Your task to perform on an android device: turn on priority inbox in the gmail app Image 0: 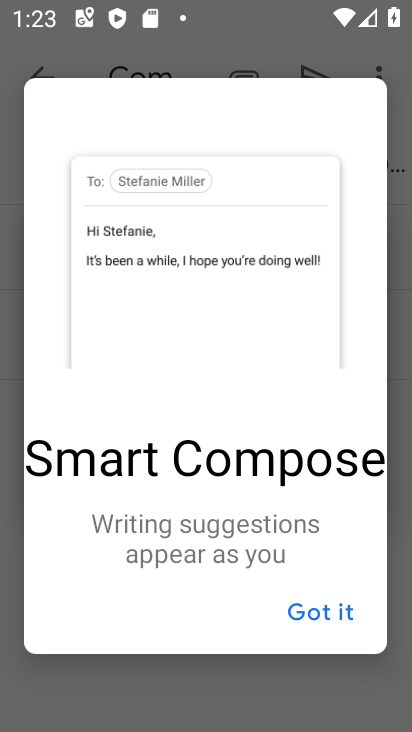
Step 0: press home button
Your task to perform on an android device: turn on priority inbox in the gmail app Image 1: 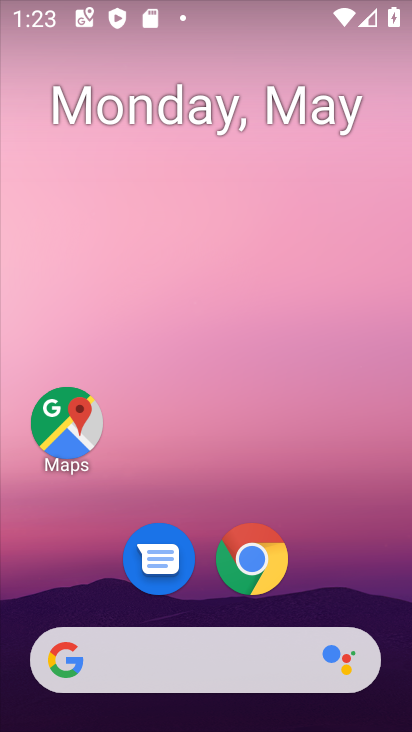
Step 1: drag from (205, 713) to (191, 195)
Your task to perform on an android device: turn on priority inbox in the gmail app Image 2: 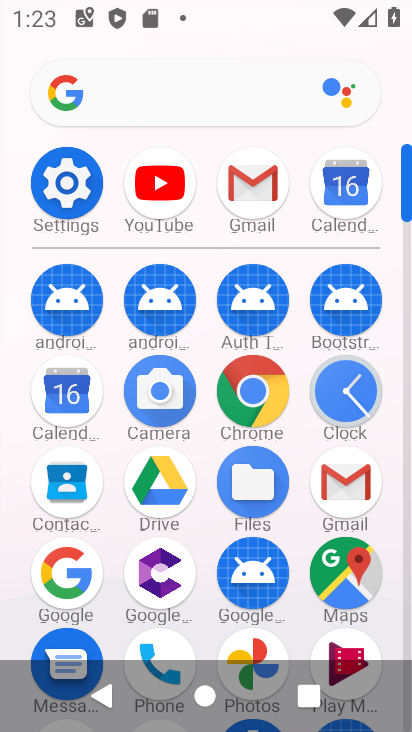
Step 2: click (256, 197)
Your task to perform on an android device: turn on priority inbox in the gmail app Image 3: 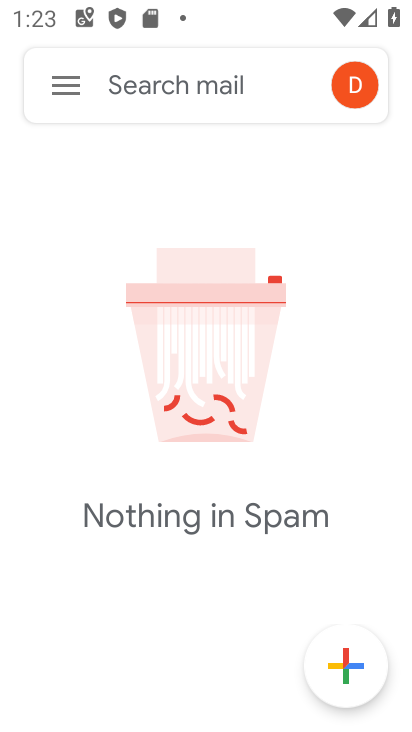
Step 3: click (57, 89)
Your task to perform on an android device: turn on priority inbox in the gmail app Image 4: 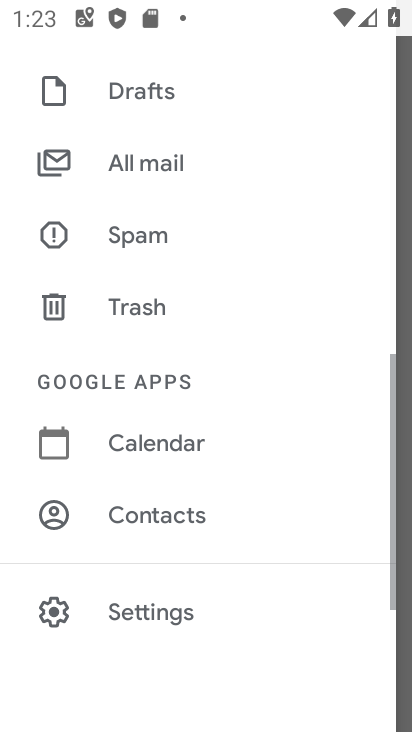
Step 4: click (154, 605)
Your task to perform on an android device: turn on priority inbox in the gmail app Image 5: 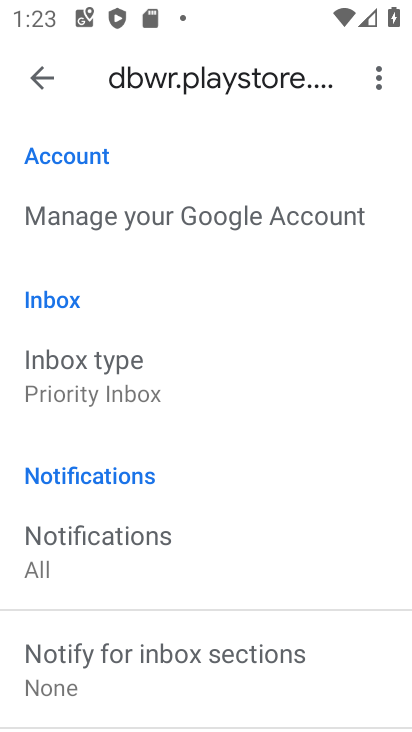
Step 5: click (111, 380)
Your task to perform on an android device: turn on priority inbox in the gmail app Image 6: 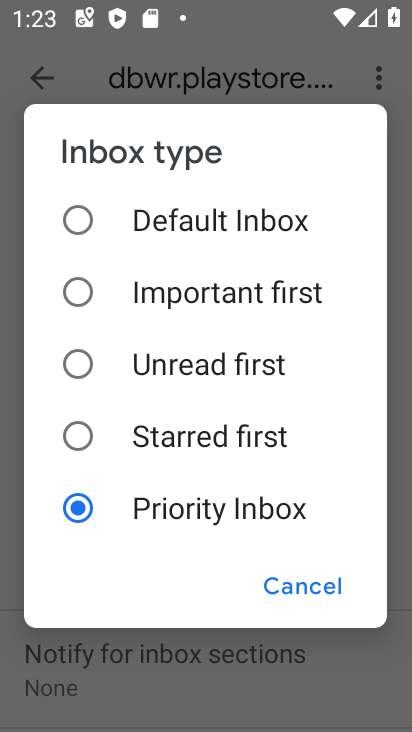
Step 6: task complete